Your task to perform on an android device: set an alarm Image 0: 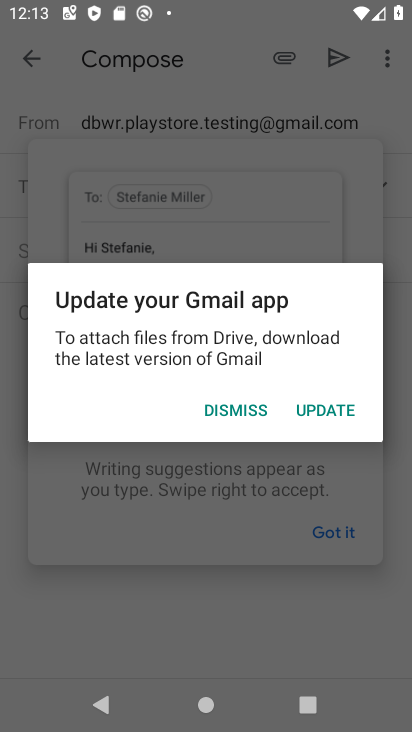
Step 0: press home button
Your task to perform on an android device: set an alarm Image 1: 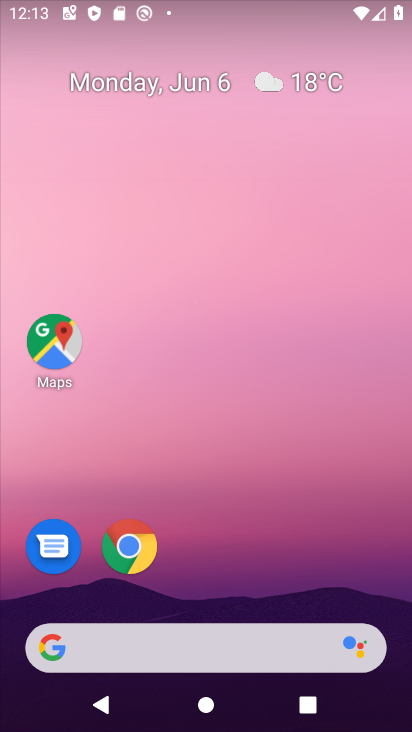
Step 1: drag from (158, 711) to (111, 106)
Your task to perform on an android device: set an alarm Image 2: 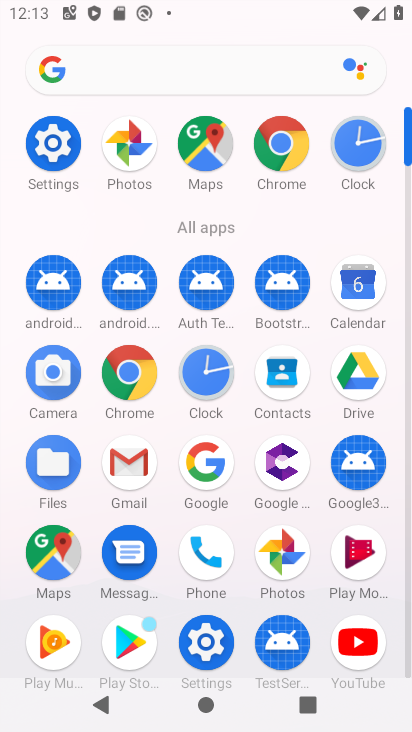
Step 2: click (207, 374)
Your task to perform on an android device: set an alarm Image 3: 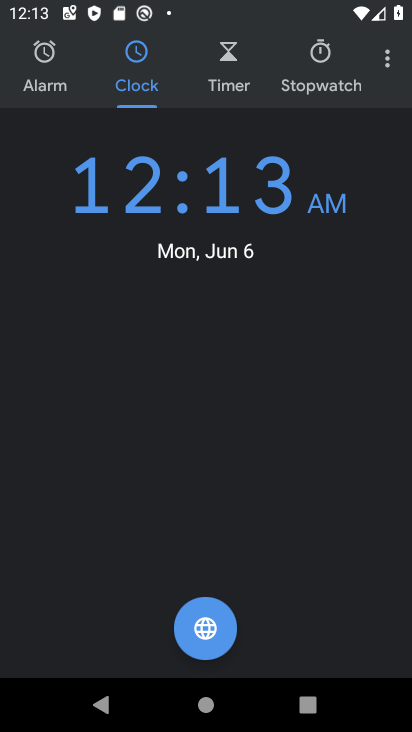
Step 3: click (45, 74)
Your task to perform on an android device: set an alarm Image 4: 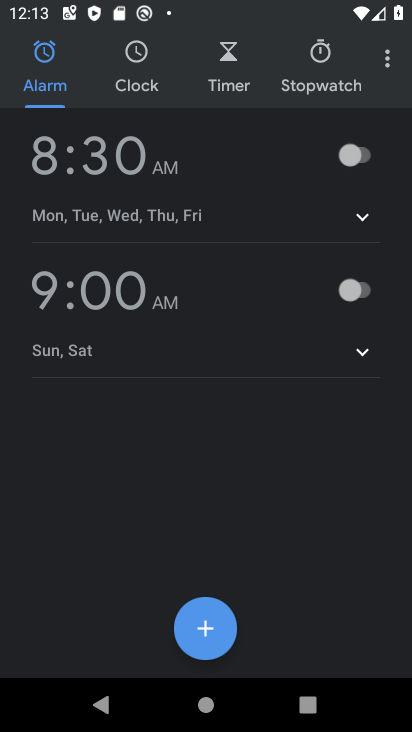
Step 4: click (362, 161)
Your task to perform on an android device: set an alarm Image 5: 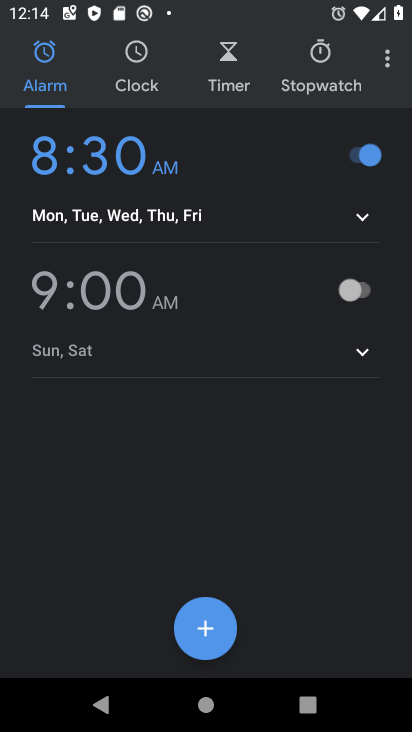
Step 5: task complete